Your task to perform on an android device: Show me the alarms in the clock app Image 0: 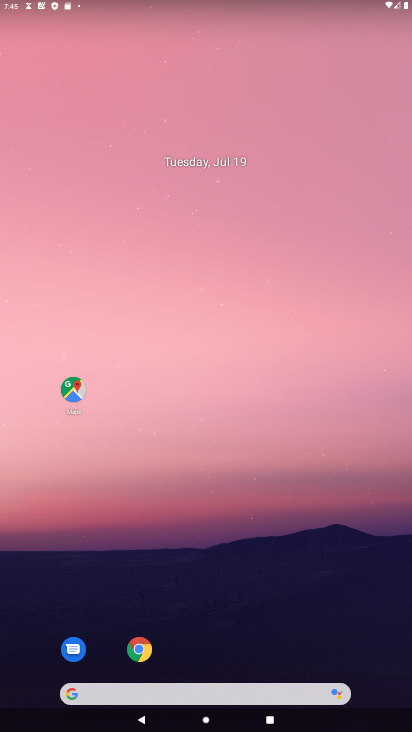
Step 0: drag from (172, 692) to (356, 57)
Your task to perform on an android device: Show me the alarms in the clock app Image 1: 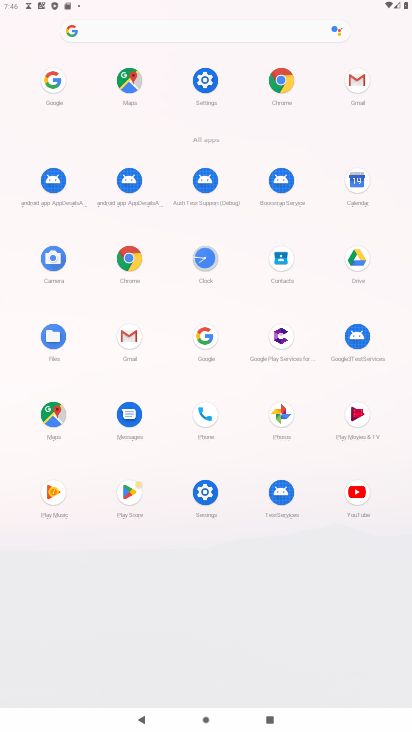
Step 1: click (207, 258)
Your task to perform on an android device: Show me the alarms in the clock app Image 2: 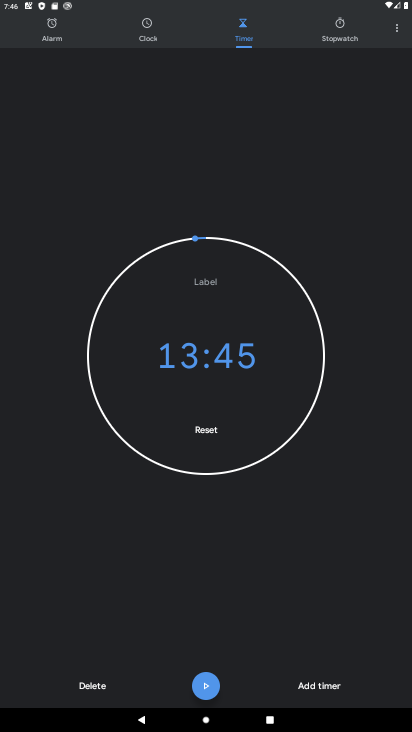
Step 2: click (52, 26)
Your task to perform on an android device: Show me the alarms in the clock app Image 3: 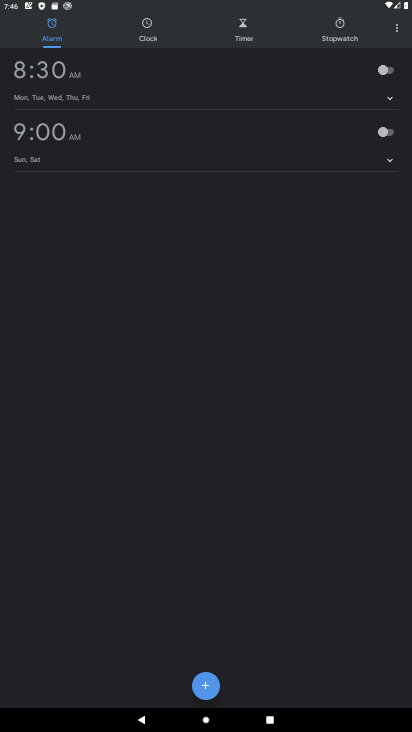
Step 3: click (207, 686)
Your task to perform on an android device: Show me the alarms in the clock app Image 4: 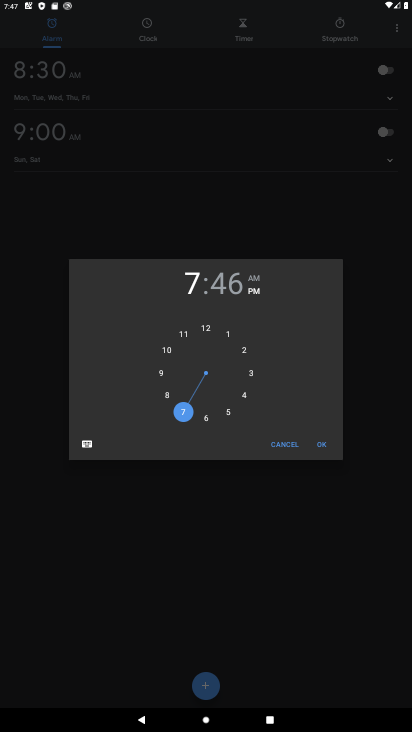
Step 4: click (171, 352)
Your task to perform on an android device: Show me the alarms in the clock app Image 5: 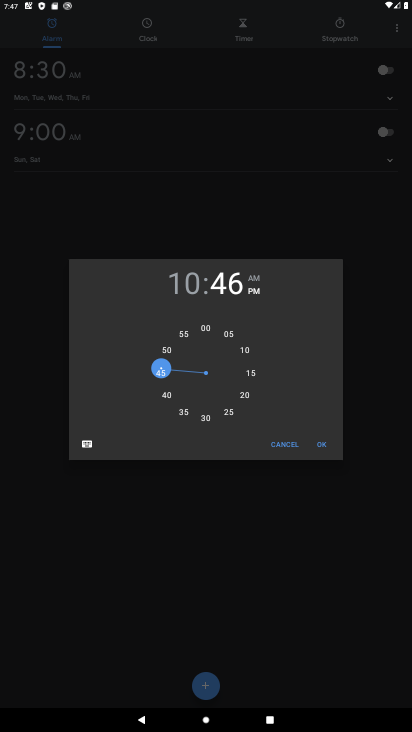
Step 5: click (320, 445)
Your task to perform on an android device: Show me the alarms in the clock app Image 6: 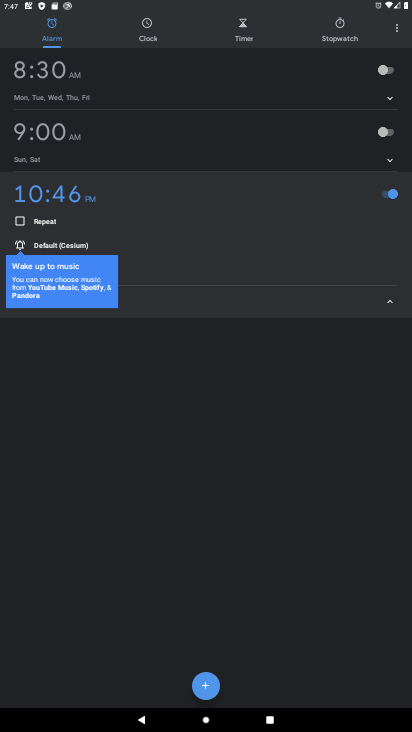
Step 6: click (392, 303)
Your task to perform on an android device: Show me the alarms in the clock app Image 7: 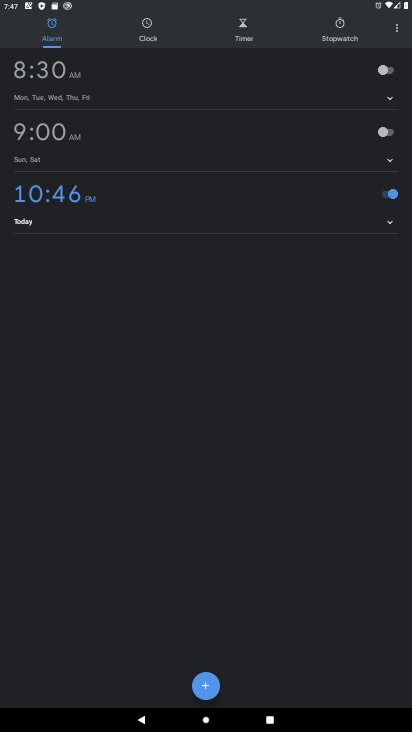
Step 7: task complete